Your task to perform on an android device: check storage Image 0: 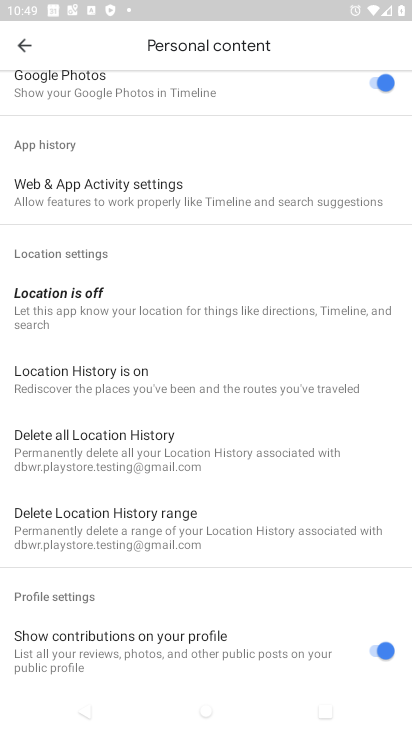
Step 0: press home button
Your task to perform on an android device: check storage Image 1: 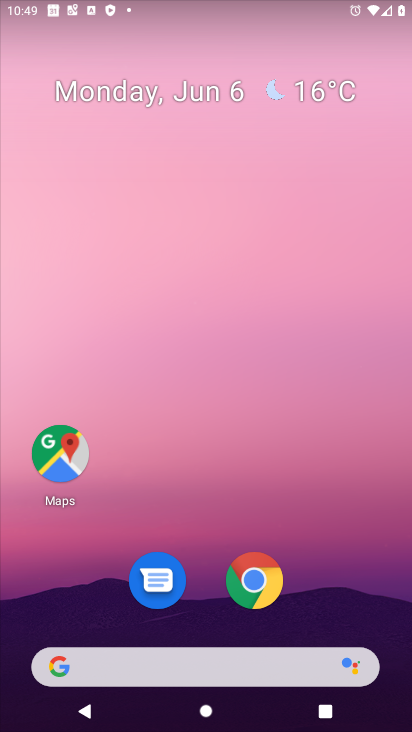
Step 1: drag from (350, 589) to (337, 8)
Your task to perform on an android device: check storage Image 2: 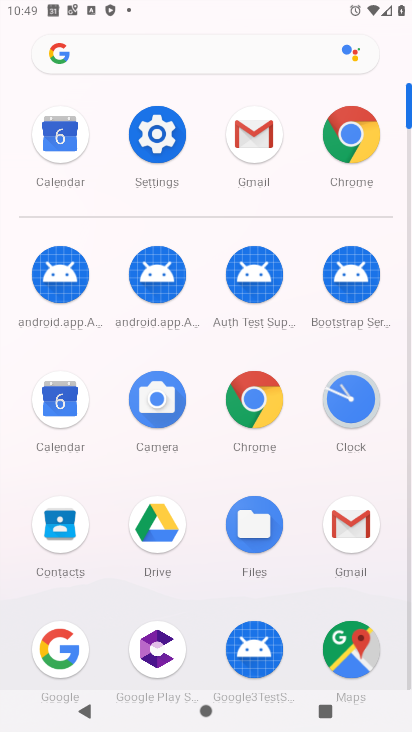
Step 2: click (155, 151)
Your task to perform on an android device: check storage Image 3: 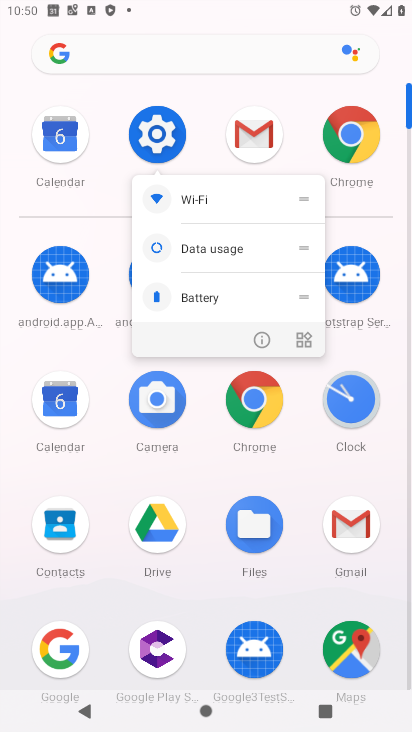
Step 3: click (155, 151)
Your task to perform on an android device: check storage Image 4: 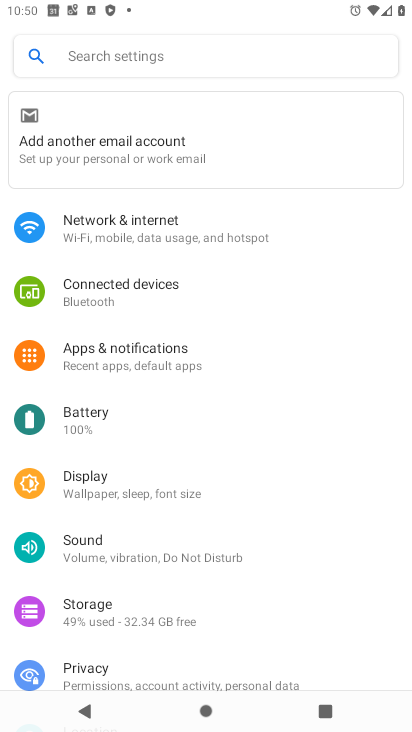
Step 4: click (149, 616)
Your task to perform on an android device: check storage Image 5: 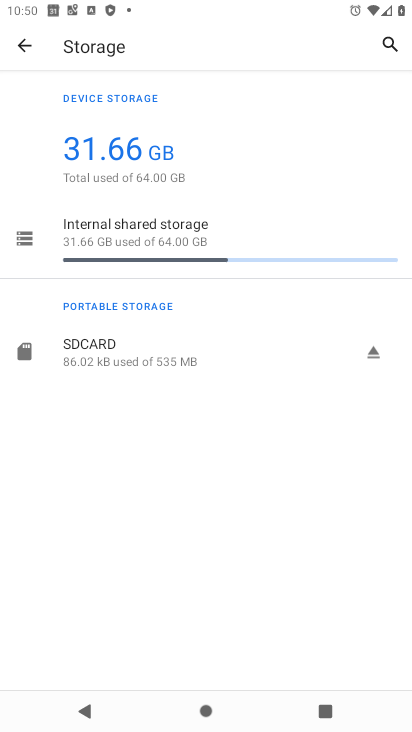
Step 5: click (201, 232)
Your task to perform on an android device: check storage Image 6: 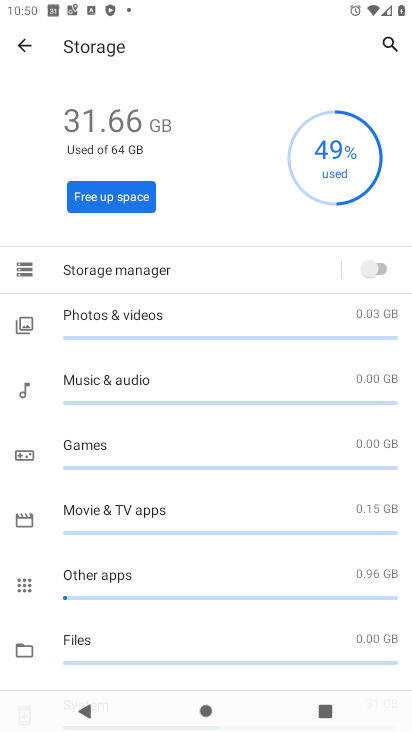
Step 6: task complete